Your task to perform on an android device: Go to accessibility settings Image 0: 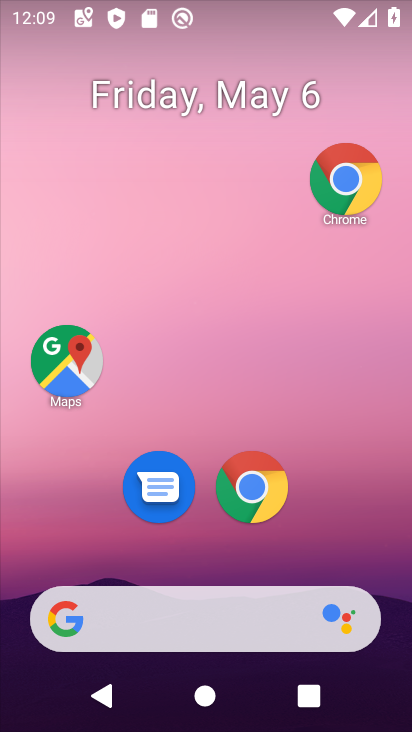
Step 0: drag from (349, 521) to (241, 117)
Your task to perform on an android device: Go to accessibility settings Image 1: 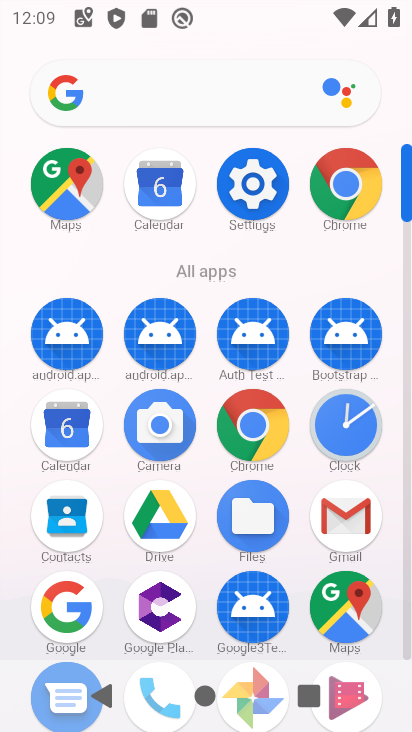
Step 1: click (246, 231)
Your task to perform on an android device: Go to accessibility settings Image 2: 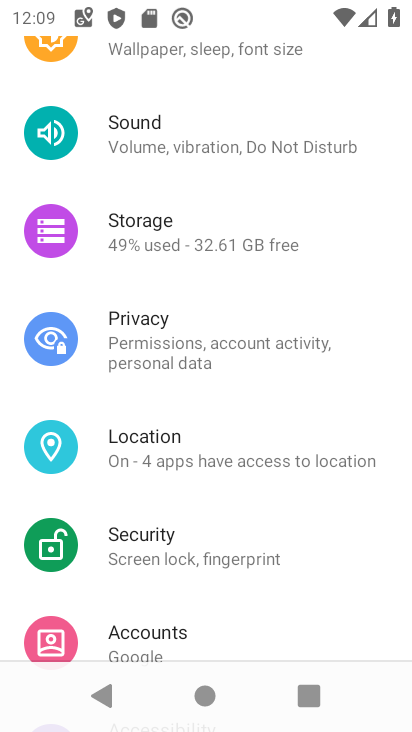
Step 2: drag from (191, 593) to (236, 391)
Your task to perform on an android device: Go to accessibility settings Image 3: 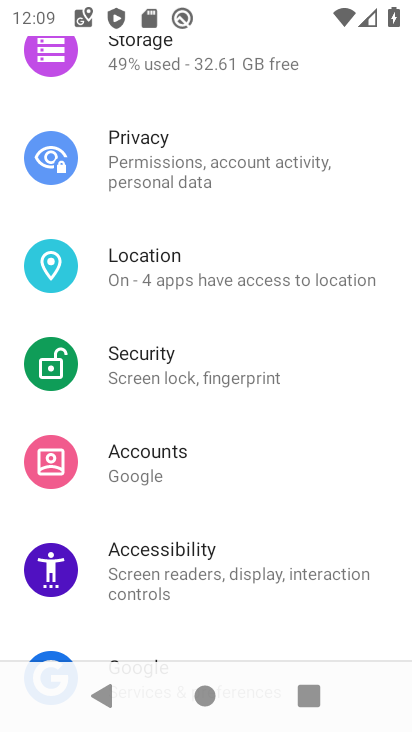
Step 3: click (219, 566)
Your task to perform on an android device: Go to accessibility settings Image 4: 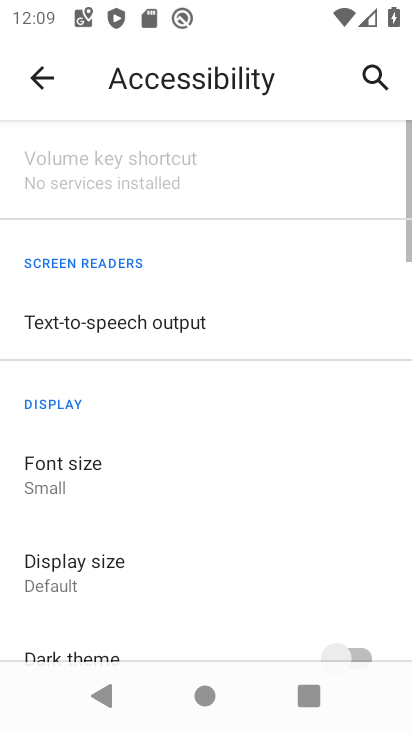
Step 4: task complete